Your task to perform on an android device: Open network settings Image 0: 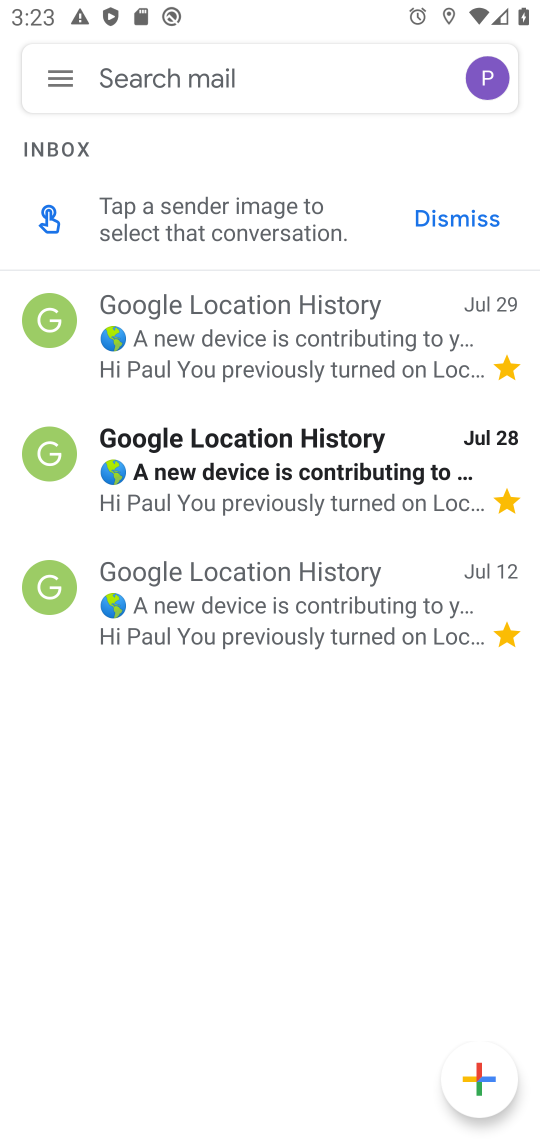
Step 0: press home button
Your task to perform on an android device: Open network settings Image 1: 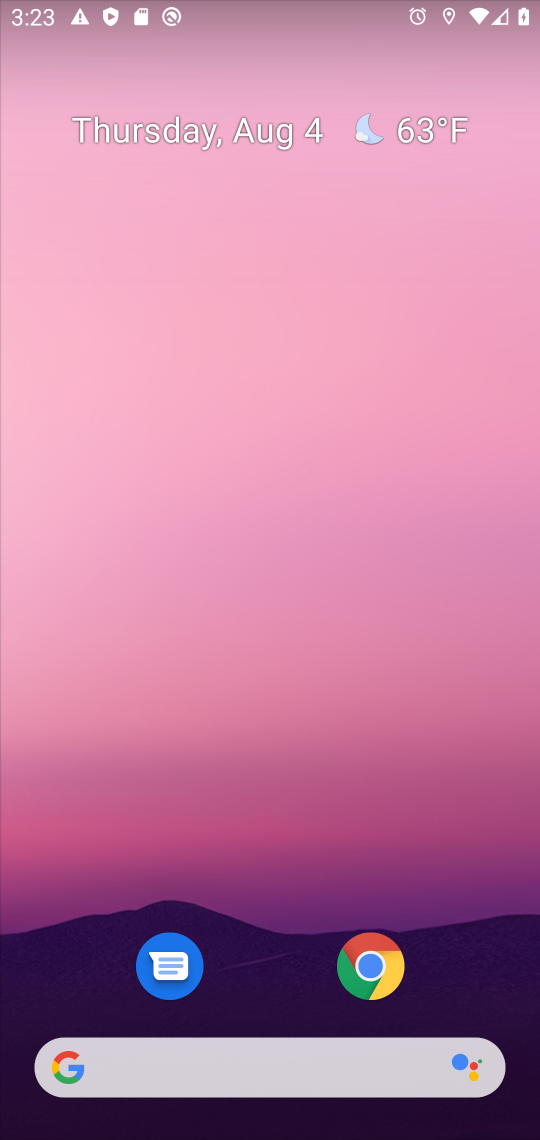
Step 1: drag from (277, 950) to (252, 219)
Your task to perform on an android device: Open network settings Image 2: 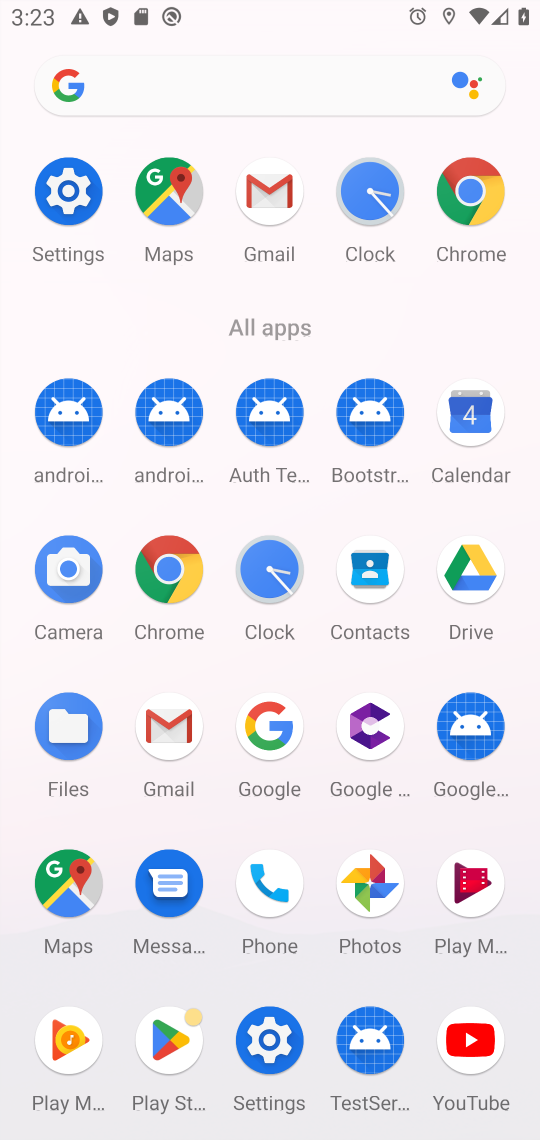
Step 2: click (75, 167)
Your task to perform on an android device: Open network settings Image 3: 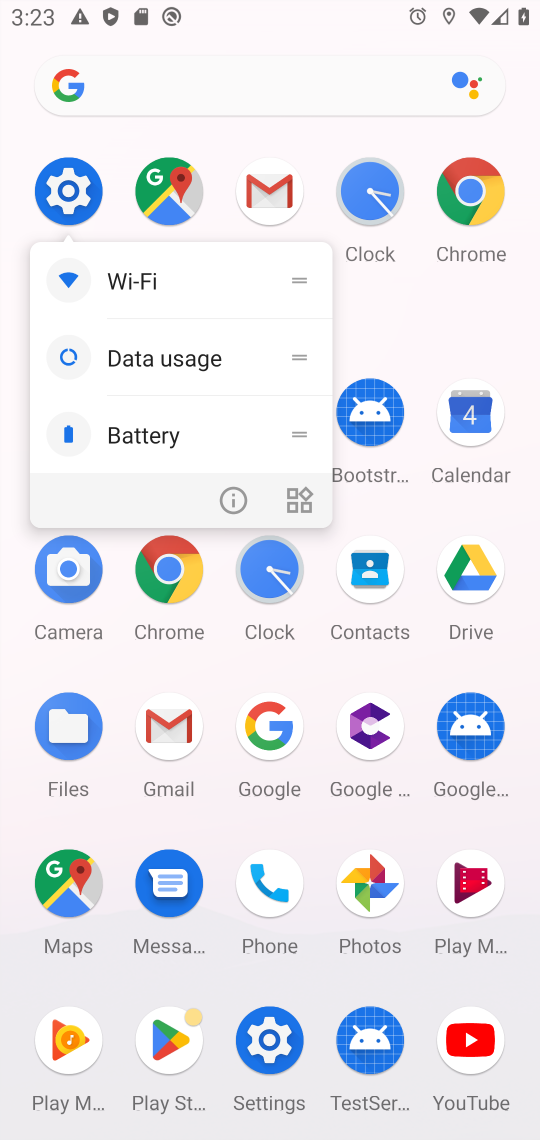
Step 3: click (98, 193)
Your task to perform on an android device: Open network settings Image 4: 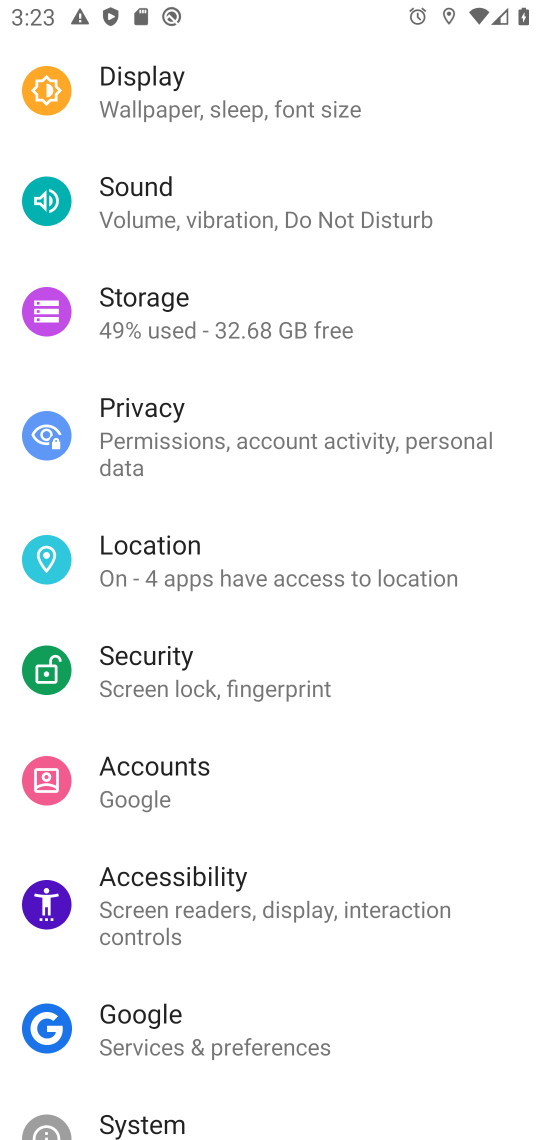
Step 4: drag from (368, 363) to (335, 970)
Your task to perform on an android device: Open network settings Image 5: 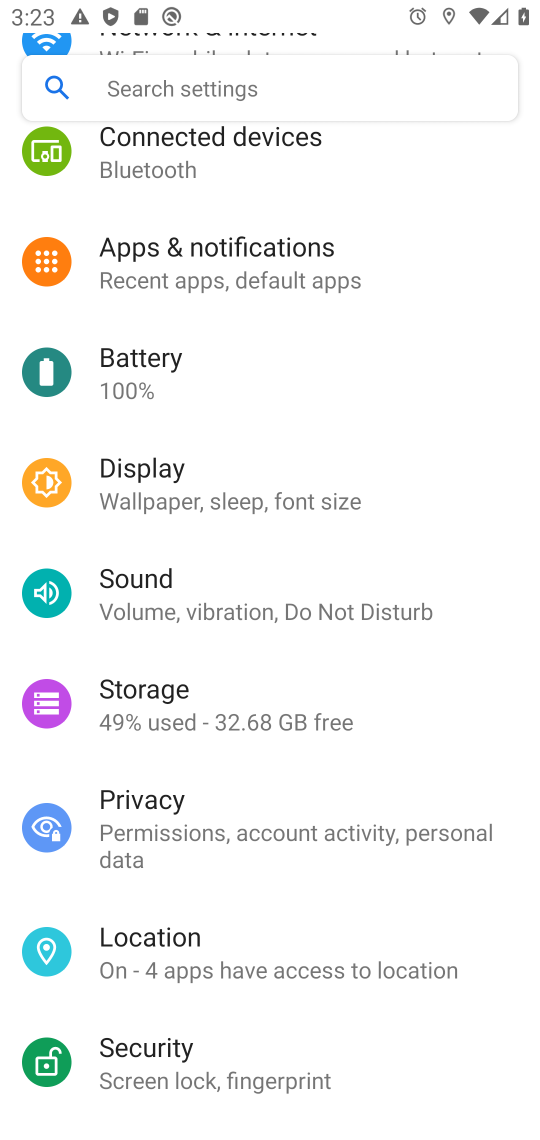
Step 5: drag from (372, 186) to (329, 1003)
Your task to perform on an android device: Open network settings Image 6: 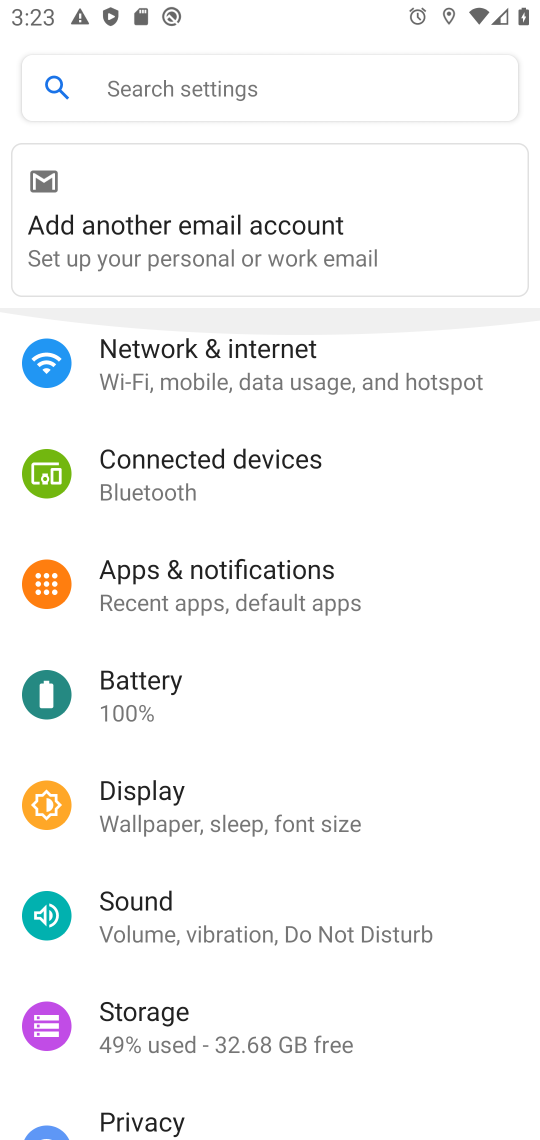
Step 6: click (173, 350)
Your task to perform on an android device: Open network settings Image 7: 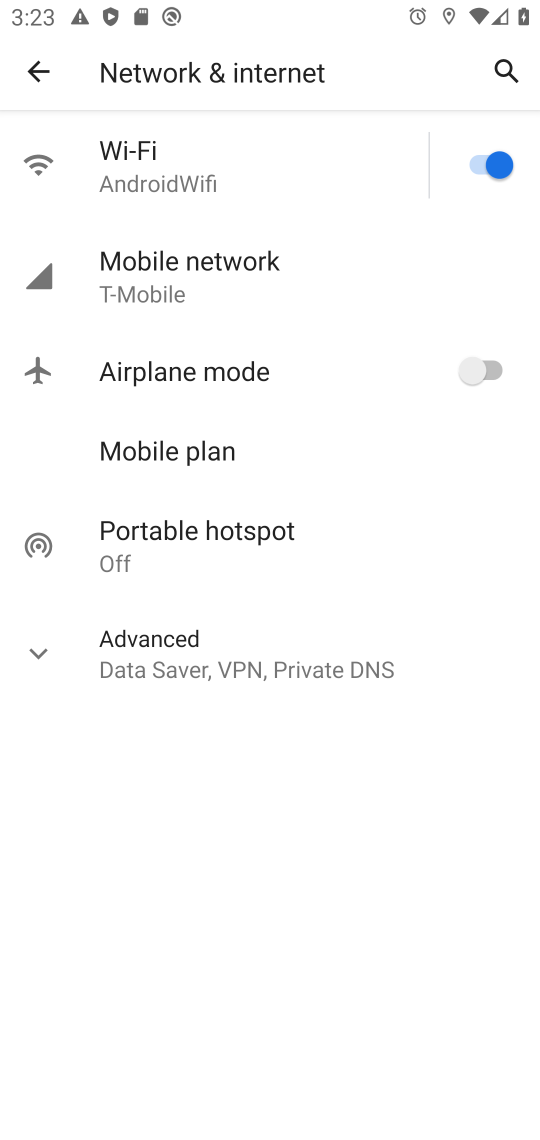
Step 7: task complete